Your task to perform on an android device: manage bookmarks in the chrome app Image 0: 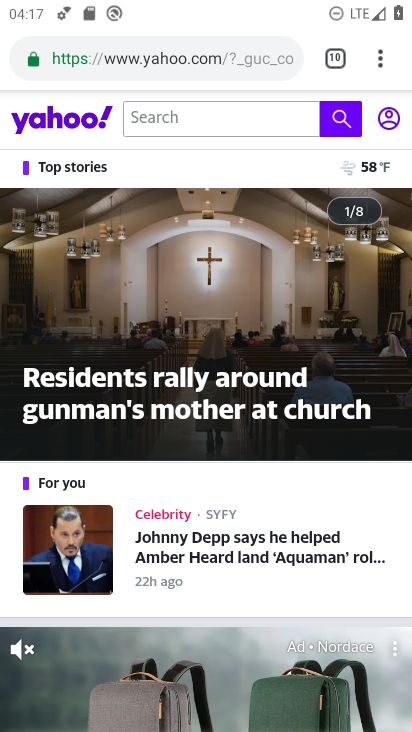
Step 0: click (379, 65)
Your task to perform on an android device: manage bookmarks in the chrome app Image 1: 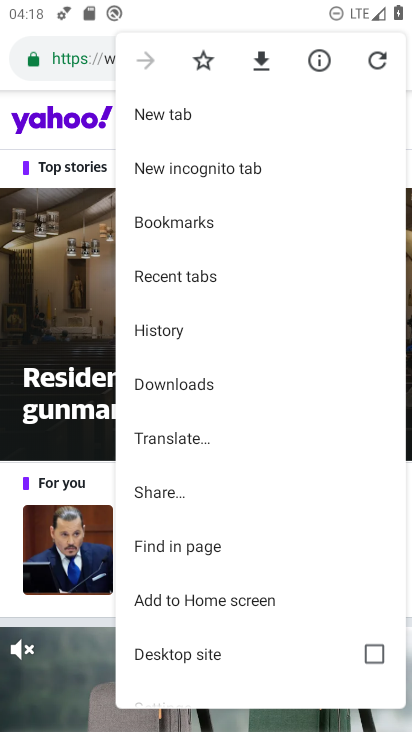
Step 1: click (182, 223)
Your task to perform on an android device: manage bookmarks in the chrome app Image 2: 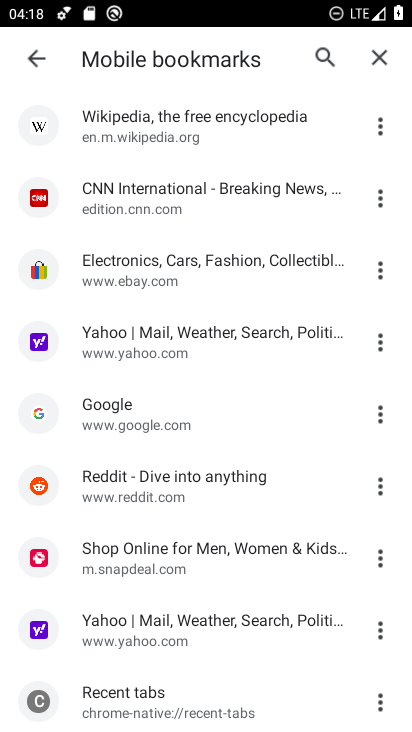
Step 2: click (379, 198)
Your task to perform on an android device: manage bookmarks in the chrome app Image 3: 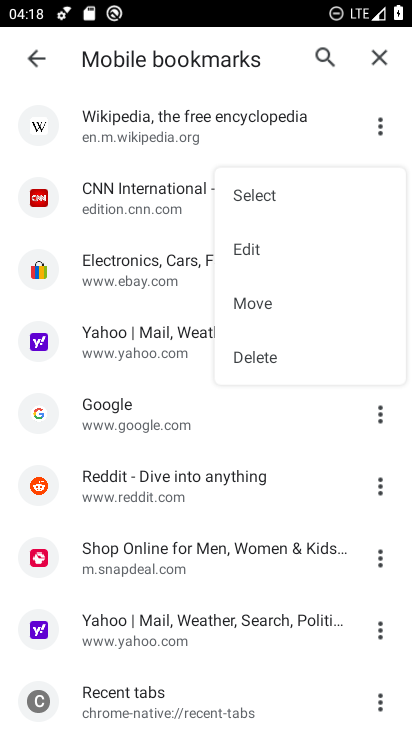
Step 3: click (256, 249)
Your task to perform on an android device: manage bookmarks in the chrome app Image 4: 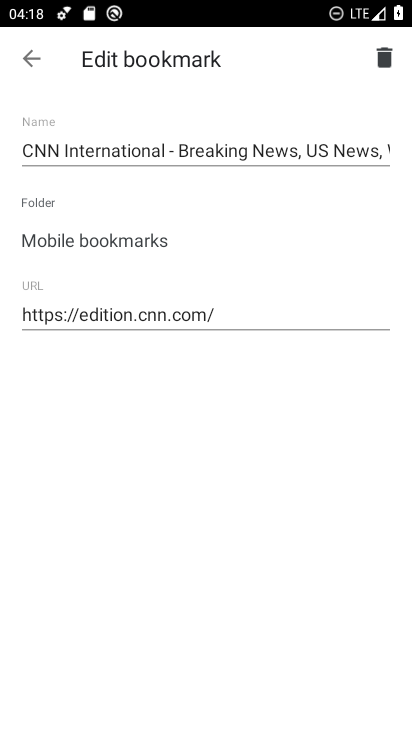
Step 4: click (154, 149)
Your task to perform on an android device: manage bookmarks in the chrome app Image 5: 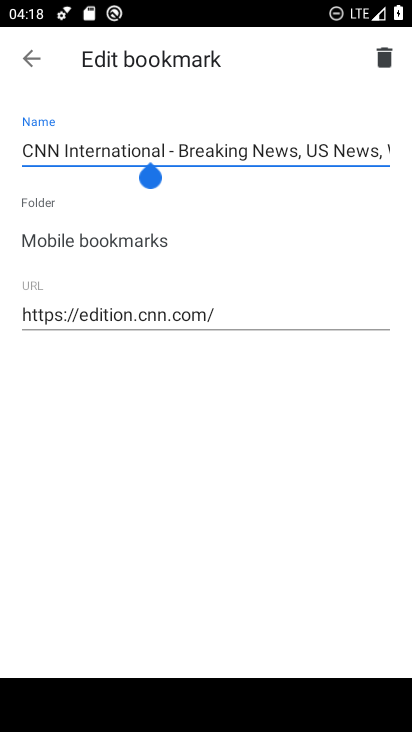
Step 5: click (141, 146)
Your task to perform on an android device: manage bookmarks in the chrome app Image 6: 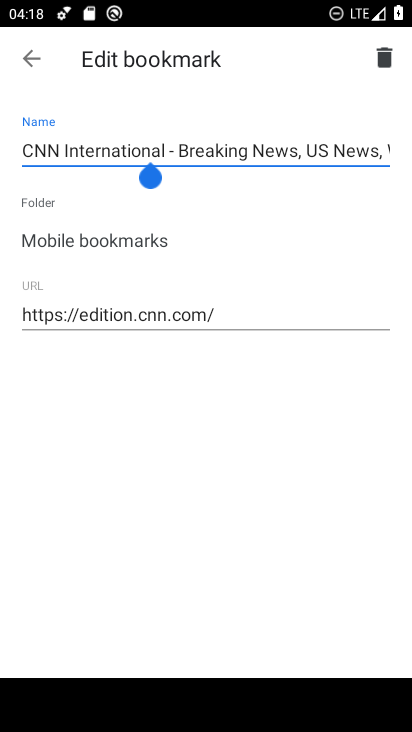
Step 6: click (141, 146)
Your task to perform on an android device: manage bookmarks in the chrome app Image 7: 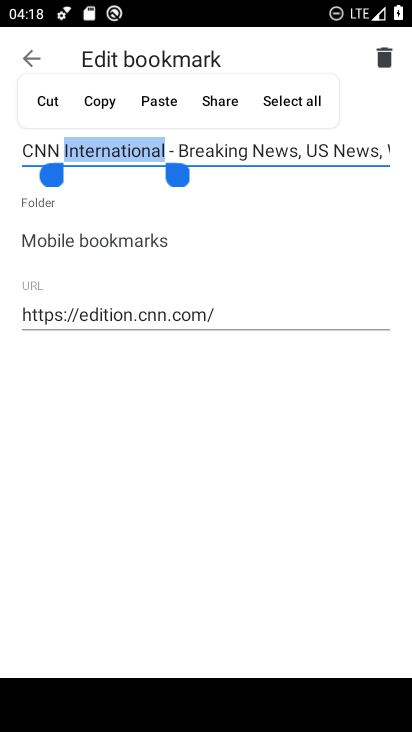
Step 7: click (50, 99)
Your task to perform on an android device: manage bookmarks in the chrome app Image 8: 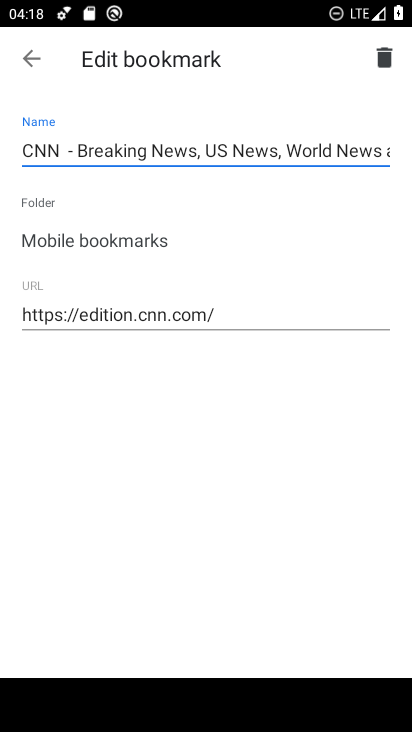
Step 8: task complete